Your task to perform on an android device: Open settings on Google Maps Image 0: 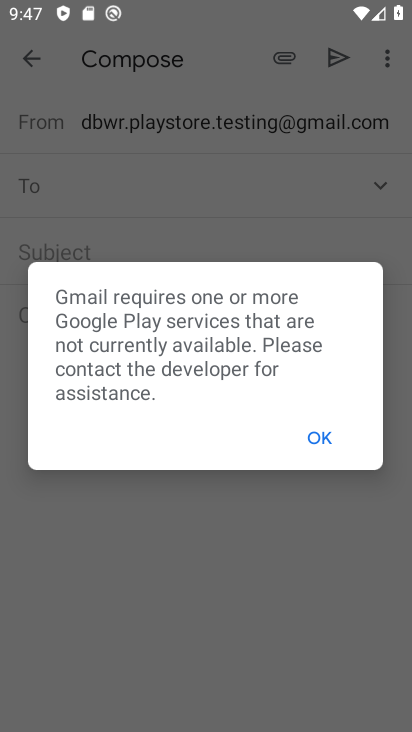
Step 0: press back button
Your task to perform on an android device: Open settings on Google Maps Image 1: 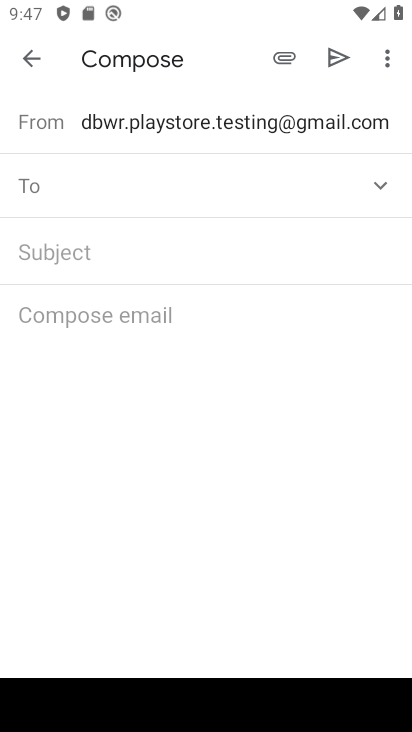
Step 1: press home button
Your task to perform on an android device: Open settings on Google Maps Image 2: 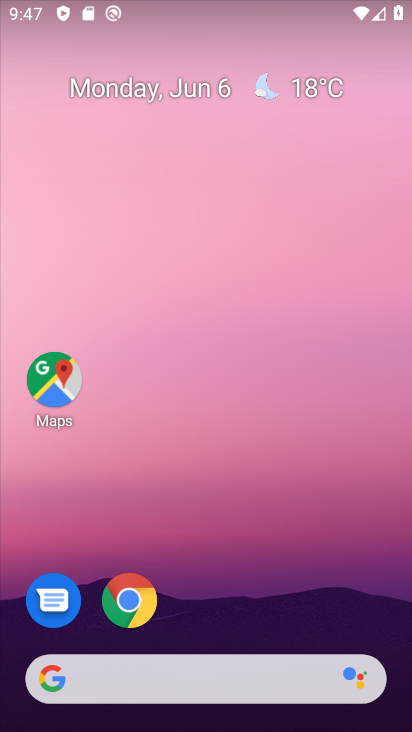
Step 2: drag from (250, 585) to (224, 7)
Your task to perform on an android device: Open settings on Google Maps Image 3: 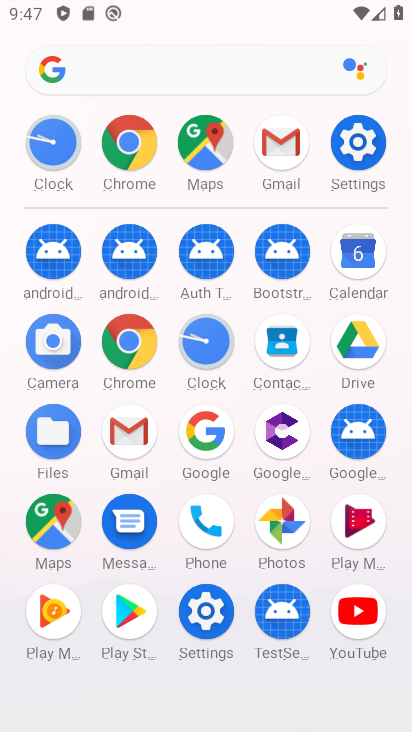
Step 3: click (54, 519)
Your task to perform on an android device: Open settings on Google Maps Image 4: 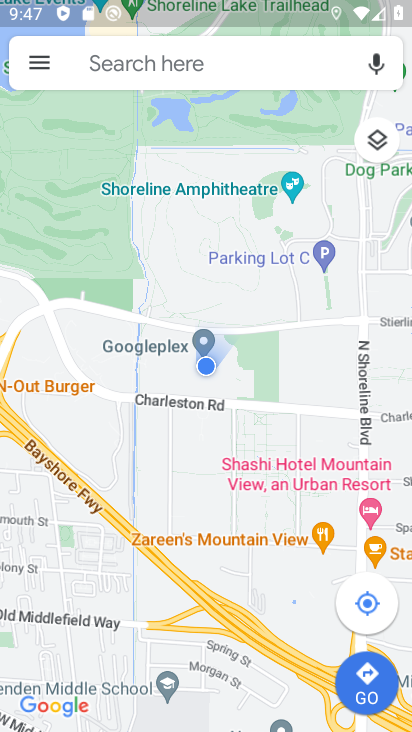
Step 4: click (33, 63)
Your task to perform on an android device: Open settings on Google Maps Image 5: 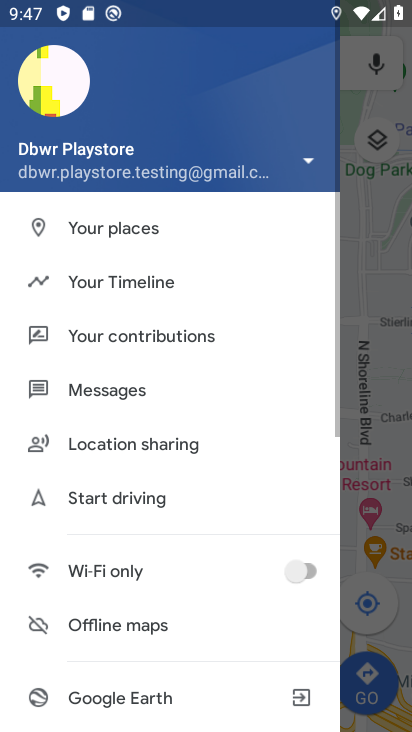
Step 5: drag from (182, 585) to (230, 187)
Your task to perform on an android device: Open settings on Google Maps Image 6: 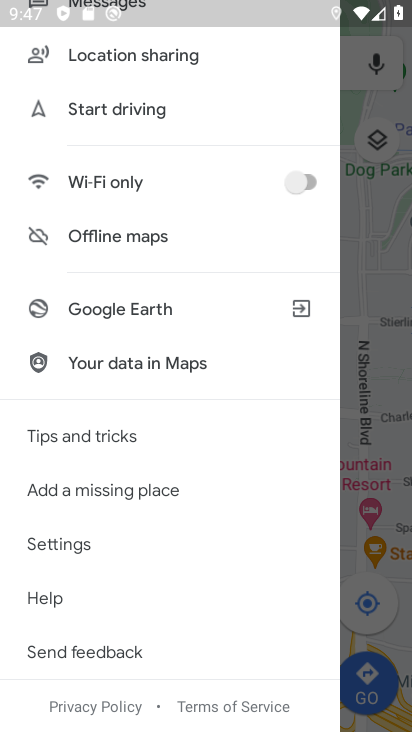
Step 6: click (78, 543)
Your task to perform on an android device: Open settings on Google Maps Image 7: 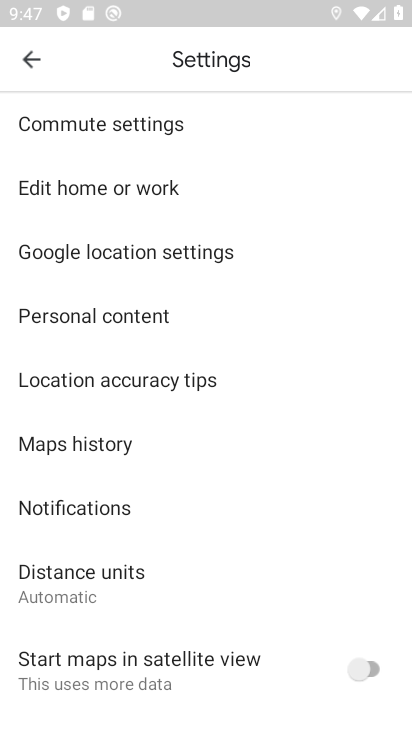
Step 7: task complete